Your task to perform on an android device: Go to Android settings Image 0: 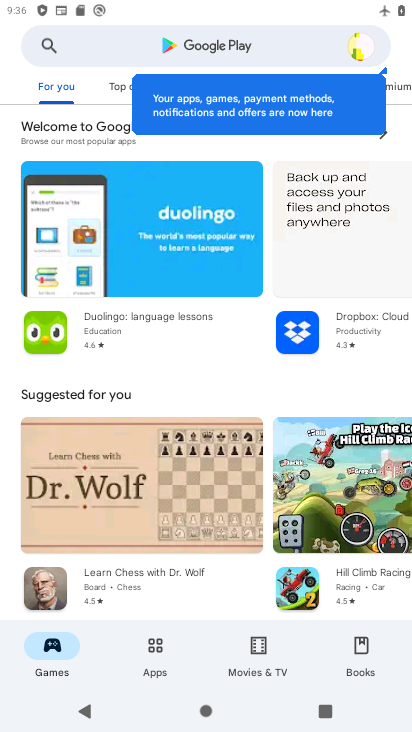
Step 0: click (404, 198)
Your task to perform on an android device: Go to Android settings Image 1: 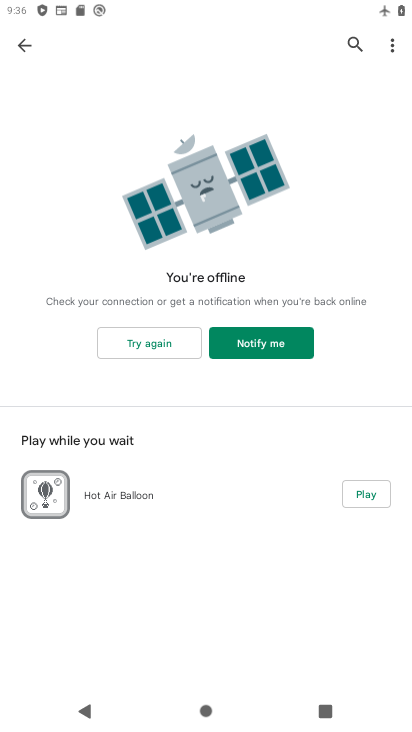
Step 1: press home button
Your task to perform on an android device: Go to Android settings Image 2: 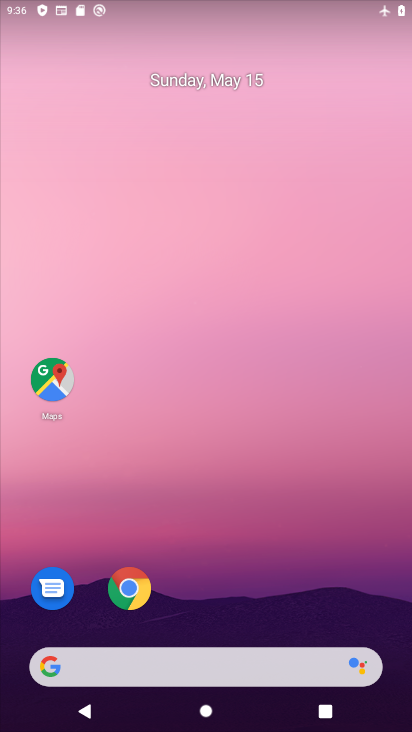
Step 2: drag from (205, 600) to (207, 429)
Your task to perform on an android device: Go to Android settings Image 3: 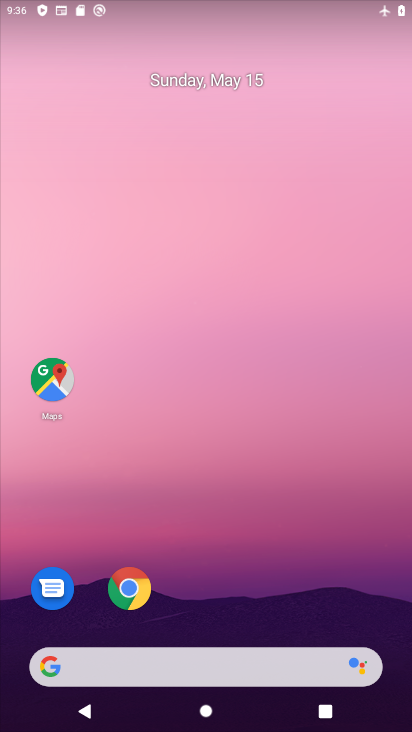
Step 3: drag from (194, 190) to (177, 67)
Your task to perform on an android device: Go to Android settings Image 4: 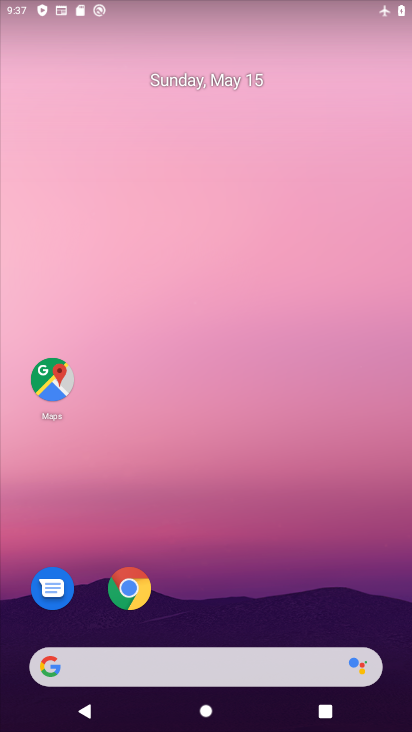
Step 4: drag from (275, 129) to (283, 1)
Your task to perform on an android device: Go to Android settings Image 5: 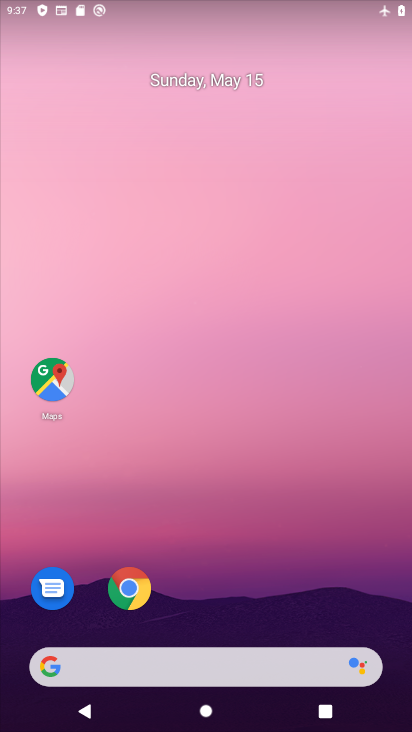
Step 5: drag from (211, 262) to (371, 5)
Your task to perform on an android device: Go to Android settings Image 6: 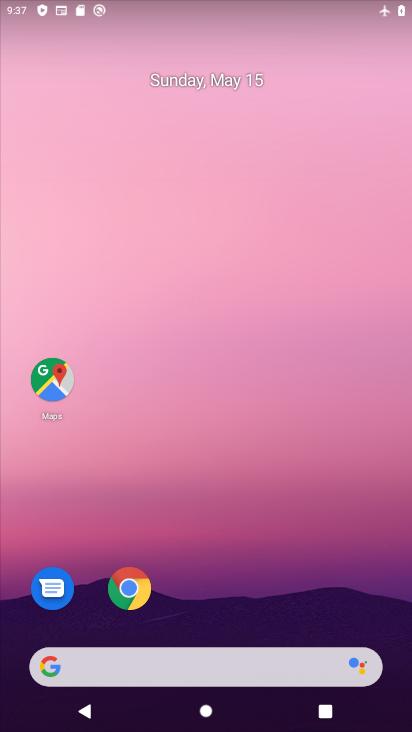
Step 6: drag from (185, 140) to (121, 1)
Your task to perform on an android device: Go to Android settings Image 7: 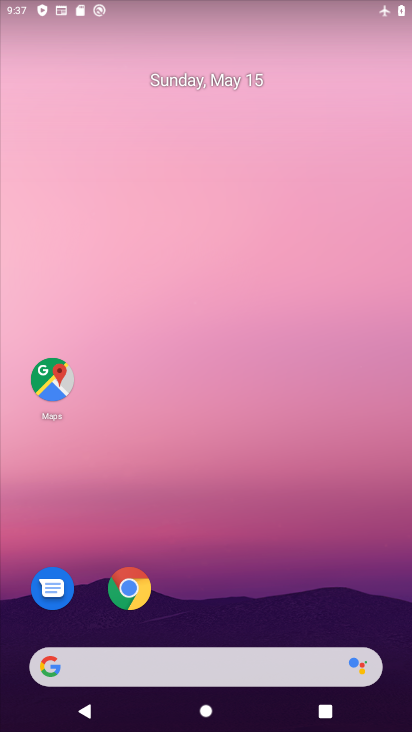
Step 7: drag from (189, 544) to (116, 11)
Your task to perform on an android device: Go to Android settings Image 8: 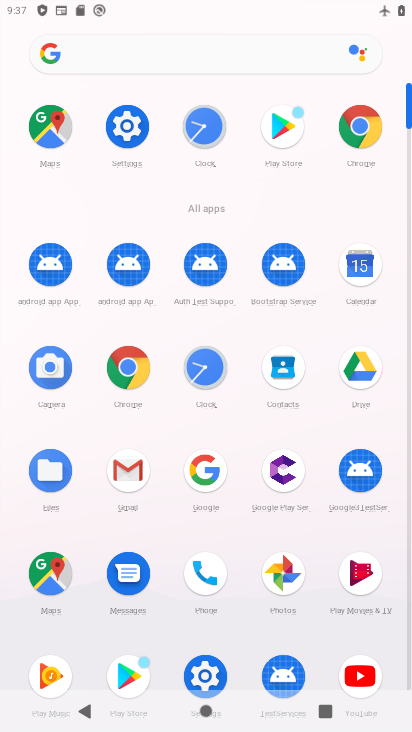
Step 8: click (119, 130)
Your task to perform on an android device: Go to Android settings Image 9: 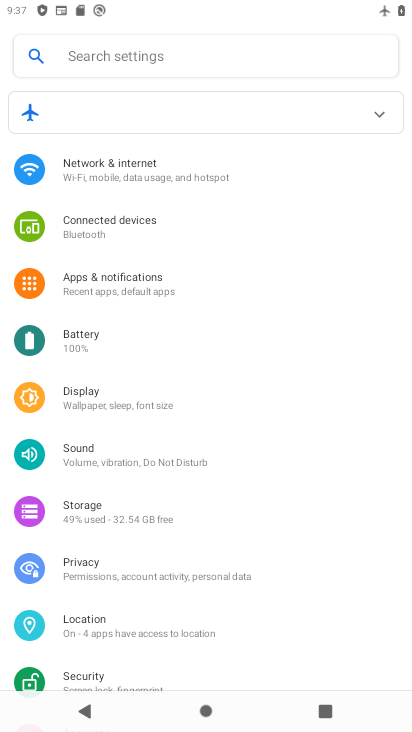
Step 9: task complete